Your task to perform on an android device: turn on the 12-hour format for clock Image 0: 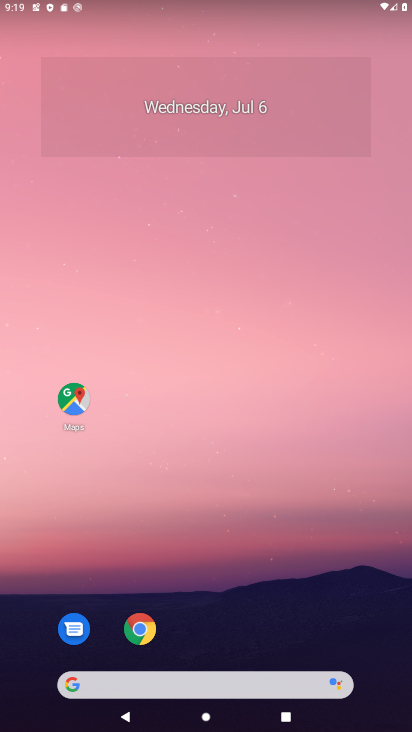
Step 0: drag from (201, 620) to (237, 91)
Your task to perform on an android device: turn on the 12-hour format for clock Image 1: 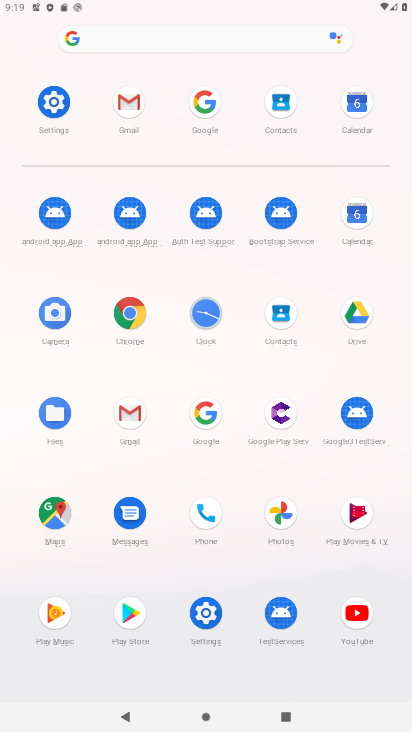
Step 1: click (204, 318)
Your task to perform on an android device: turn on the 12-hour format for clock Image 2: 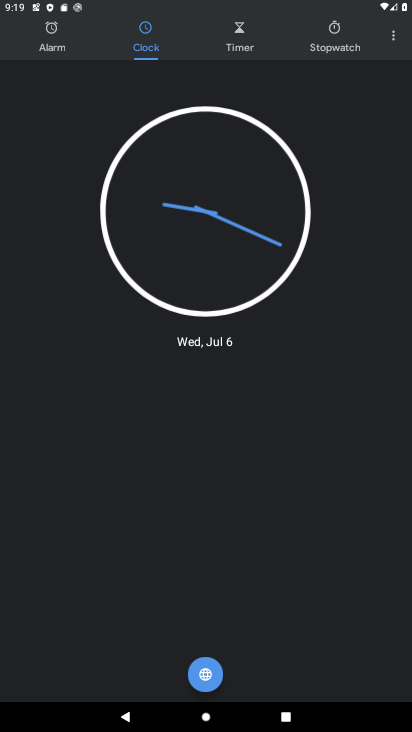
Step 2: click (386, 32)
Your task to perform on an android device: turn on the 12-hour format for clock Image 3: 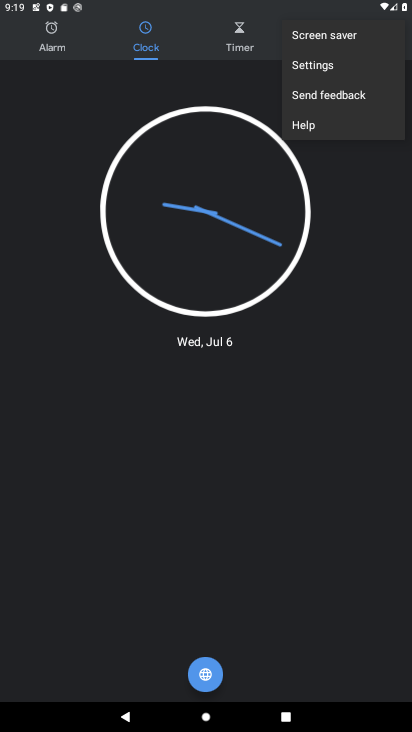
Step 3: click (310, 61)
Your task to perform on an android device: turn on the 12-hour format for clock Image 4: 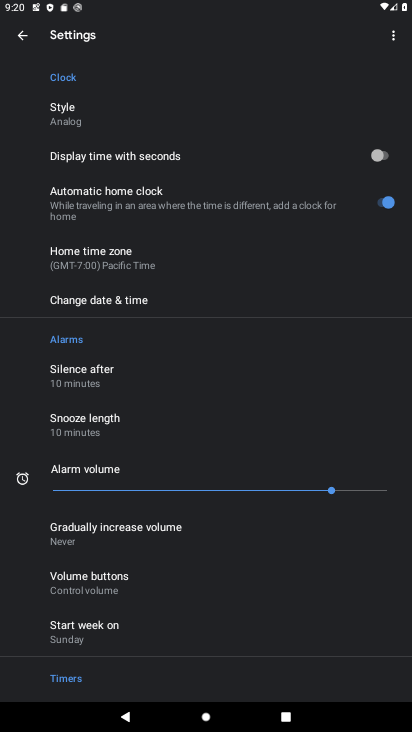
Step 4: click (131, 300)
Your task to perform on an android device: turn on the 12-hour format for clock Image 5: 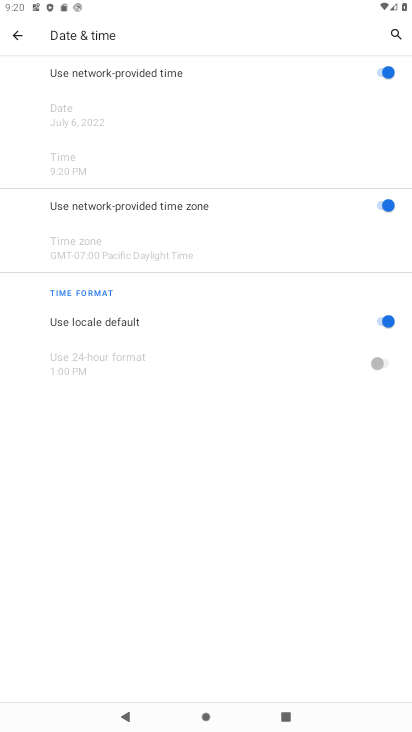
Step 5: task complete